Your task to perform on an android device: visit the assistant section in the google photos Image 0: 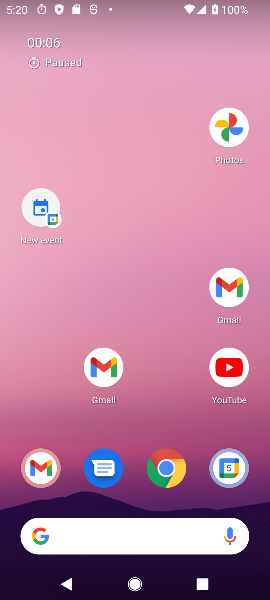
Step 0: press back button
Your task to perform on an android device: visit the assistant section in the google photos Image 1: 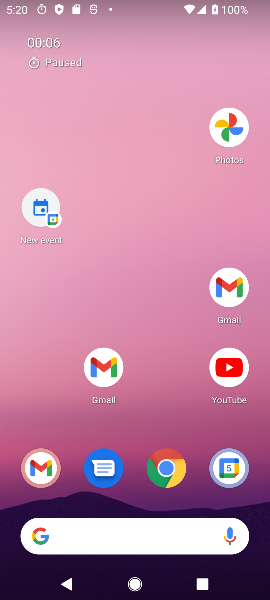
Step 1: drag from (158, 552) to (93, 176)
Your task to perform on an android device: visit the assistant section in the google photos Image 2: 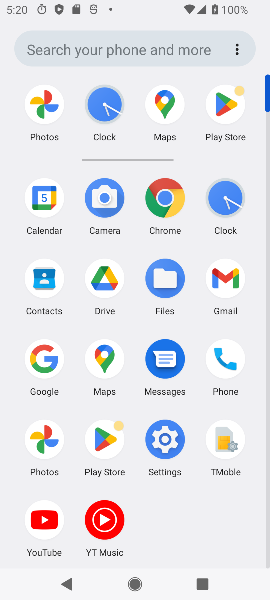
Step 2: click (38, 440)
Your task to perform on an android device: visit the assistant section in the google photos Image 3: 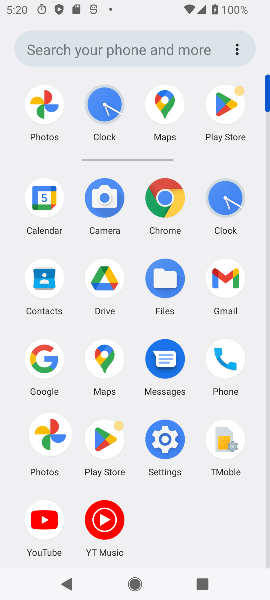
Step 3: click (44, 435)
Your task to perform on an android device: visit the assistant section in the google photos Image 4: 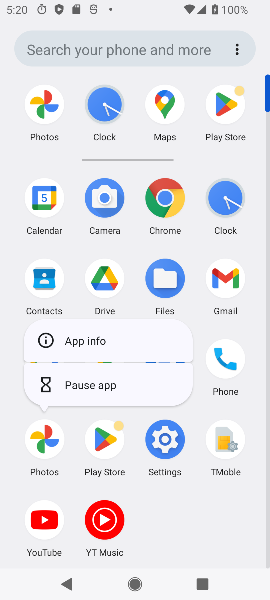
Step 4: click (45, 434)
Your task to perform on an android device: visit the assistant section in the google photos Image 5: 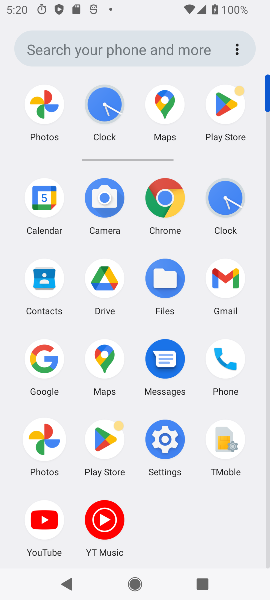
Step 5: click (46, 434)
Your task to perform on an android device: visit the assistant section in the google photos Image 6: 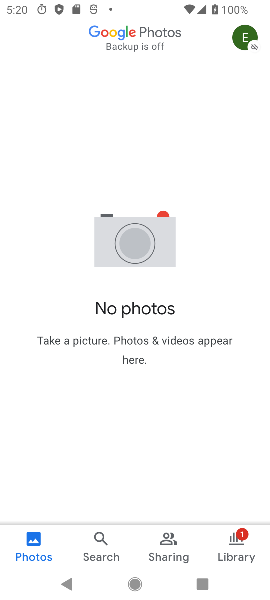
Step 6: click (46, 434)
Your task to perform on an android device: visit the assistant section in the google photos Image 7: 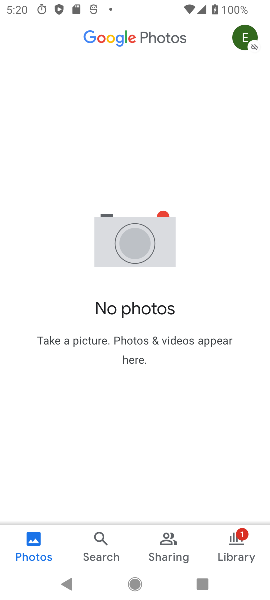
Step 7: click (164, 540)
Your task to perform on an android device: visit the assistant section in the google photos Image 8: 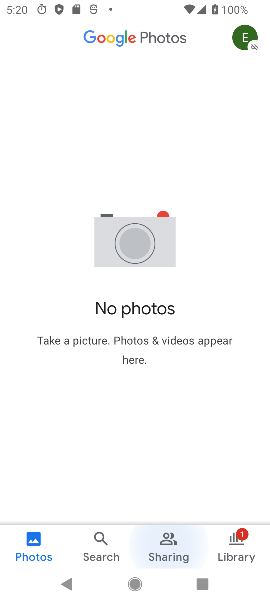
Step 8: click (165, 540)
Your task to perform on an android device: visit the assistant section in the google photos Image 9: 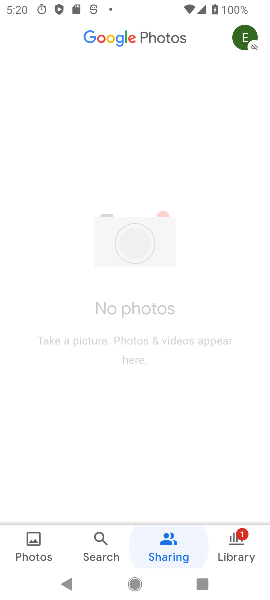
Step 9: click (165, 540)
Your task to perform on an android device: visit the assistant section in the google photos Image 10: 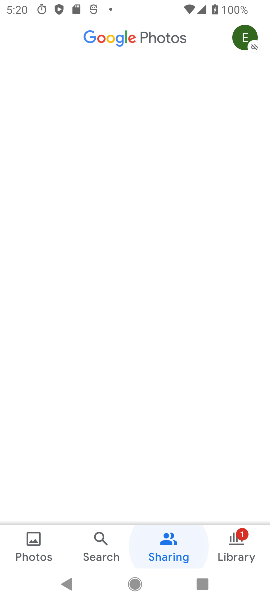
Step 10: click (165, 540)
Your task to perform on an android device: visit the assistant section in the google photos Image 11: 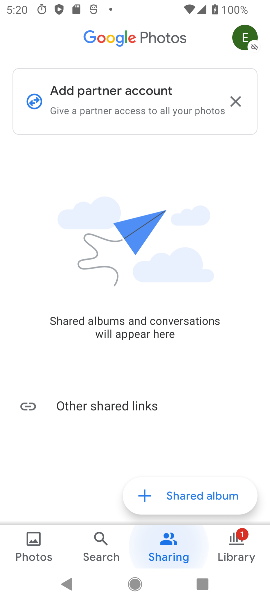
Step 11: click (165, 540)
Your task to perform on an android device: visit the assistant section in the google photos Image 12: 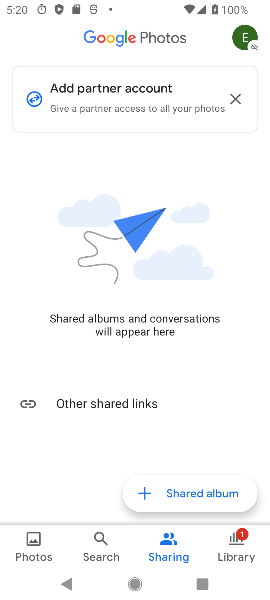
Step 12: click (45, 555)
Your task to perform on an android device: visit the assistant section in the google photos Image 13: 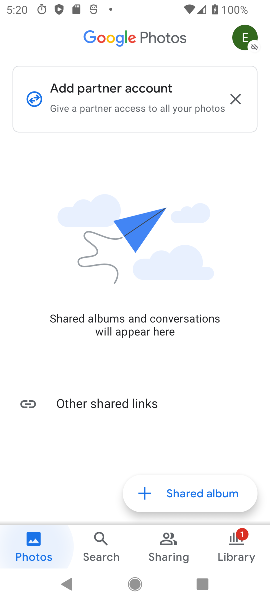
Step 13: click (45, 555)
Your task to perform on an android device: visit the assistant section in the google photos Image 14: 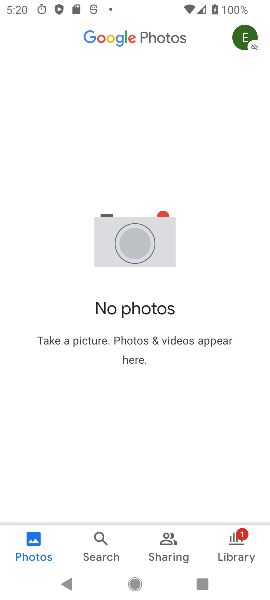
Step 14: task complete